Your task to perform on an android device: open sync settings in chrome Image 0: 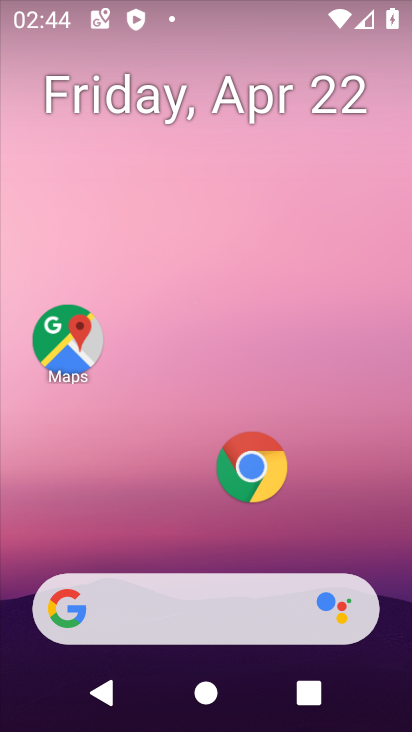
Step 0: click (250, 461)
Your task to perform on an android device: open sync settings in chrome Image 1: 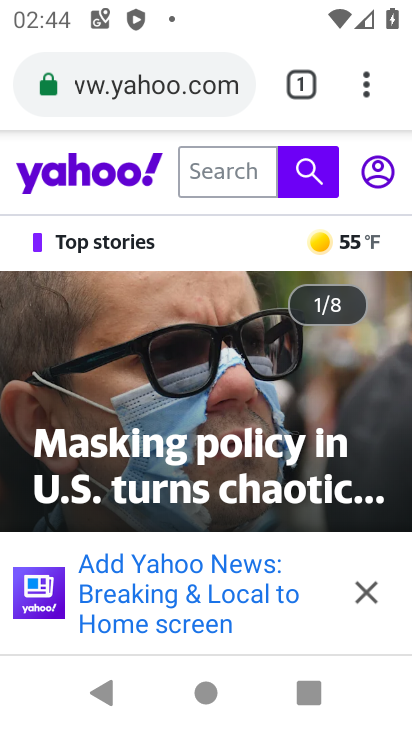
Step 1: click (371, 94)
Your task to perform on an android device: open sync settings in chrome Image 2: 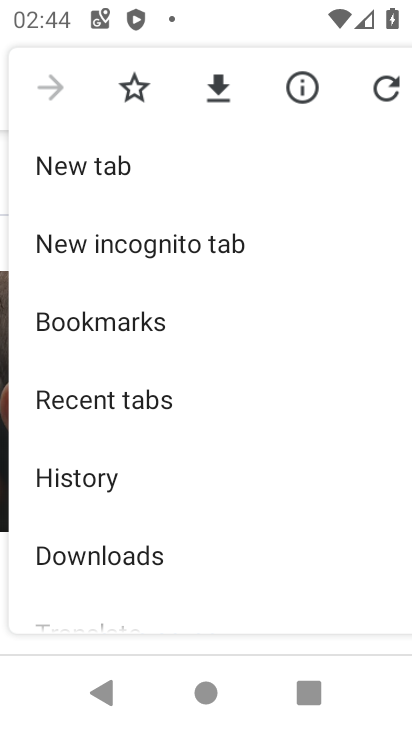
Step 2: drag from (300, 445) to (234, 161)
Your task to perform on an android device: open sync settings in chrome Image 3: 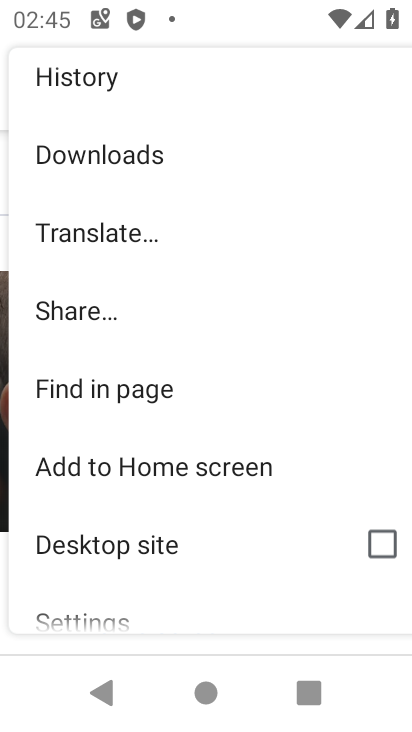
Step 3: drag from (120, 503) to (158, 222)
Your task to perform on an android device: open sync settings in chrome Image 4: 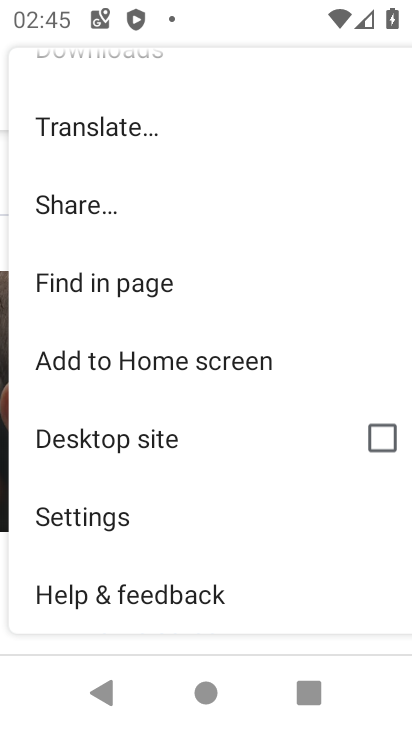
Step 4: click (74, 525)
Your task to perform on an android device: open sync settings in chrome Image 5: 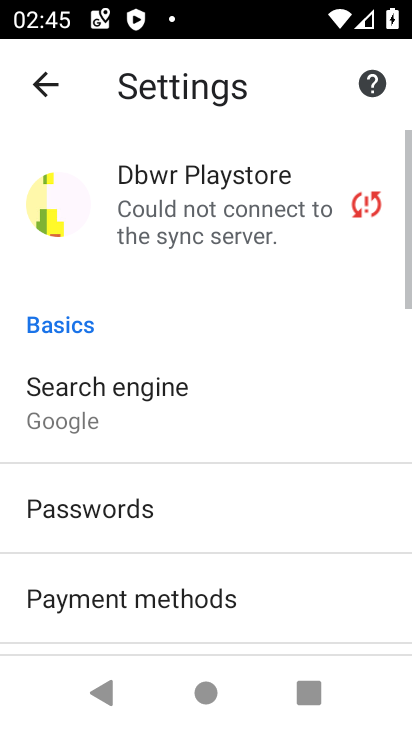
Step 5: drag from (90, 552) to (222, 127)
Your task to perform on an android device: open sync settings in chrome Image 6: 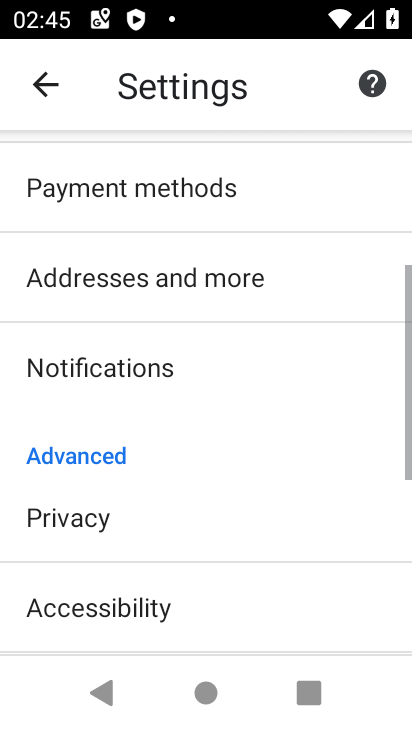
Step 6: drag from (104, 532) to (246, 188)
Your task to perform on an android device: open sync settings in chrome Image 7: 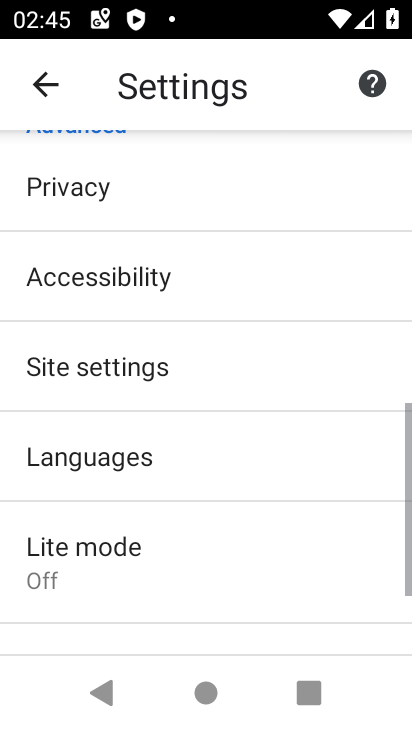
Step 7: drag from (195, 479) to (242, 620)
Your task to perform on an android device: open sync settings in chrome Image 8: 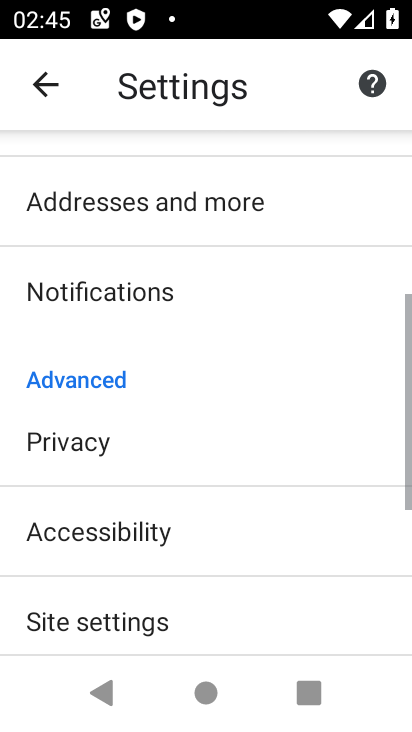
Step 8: drag from (232, 354) to (197, 618)
Your task to perform on an android device: open sync settings in chrome Image 9: 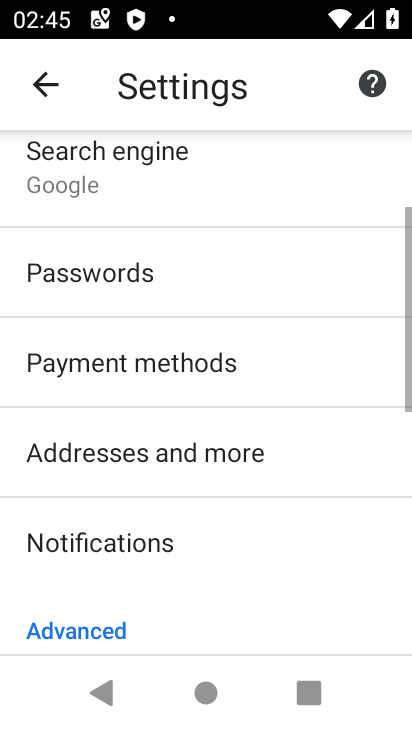
Step 9: drag from (232, 324) to (179, 666)
Your task to perform on an android device: open sync settings in chrome Image 10: 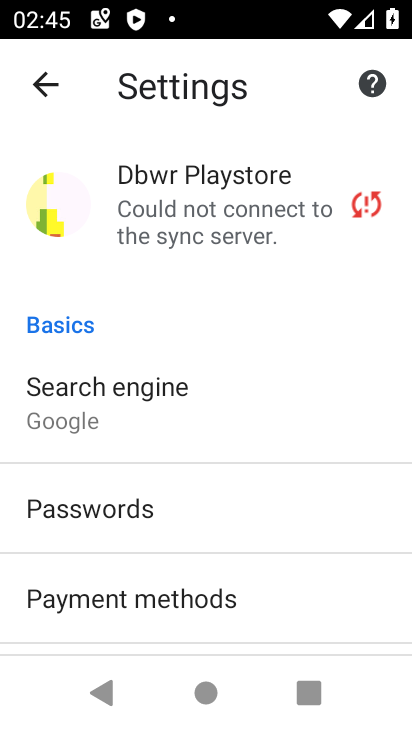
Step 10: click (358, 198)
Your task to perform on an android device: open sync settings in chrome Image 11: 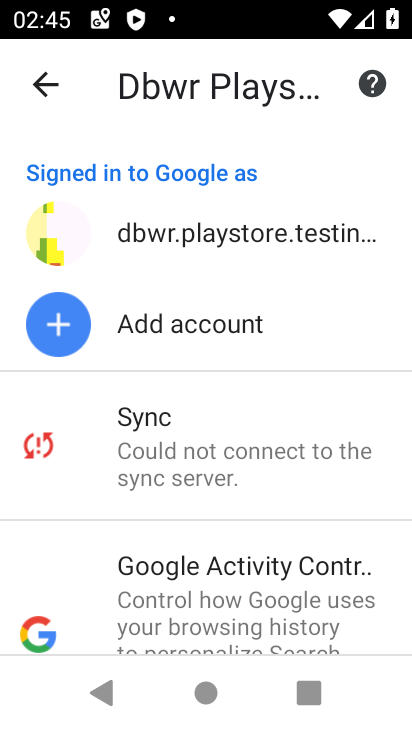
Step 11: click (186, 457)
Your task to perform on an android device: open sync settings in chrome Image 12: 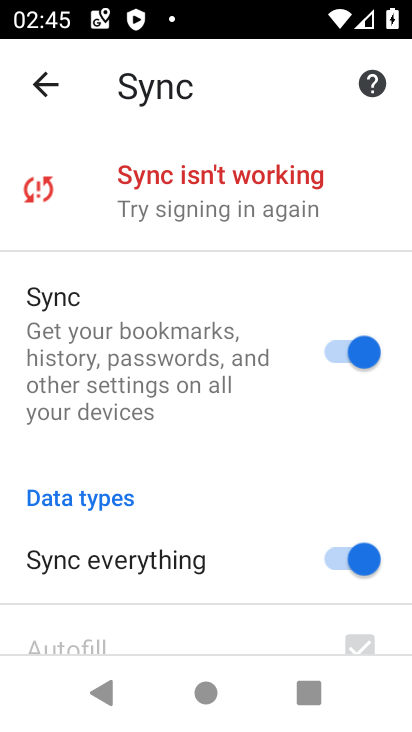
Step 12: task complete